Your task to perform on an android device: show emergency info Image 0: 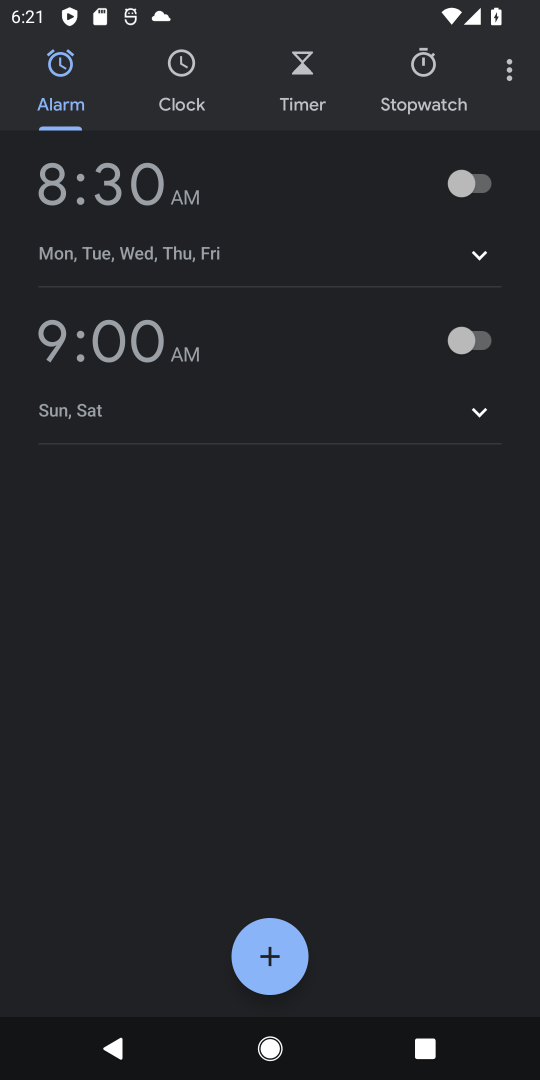
Step 0: press back button
Your task to perform on an android device: show emergency info Image 1: 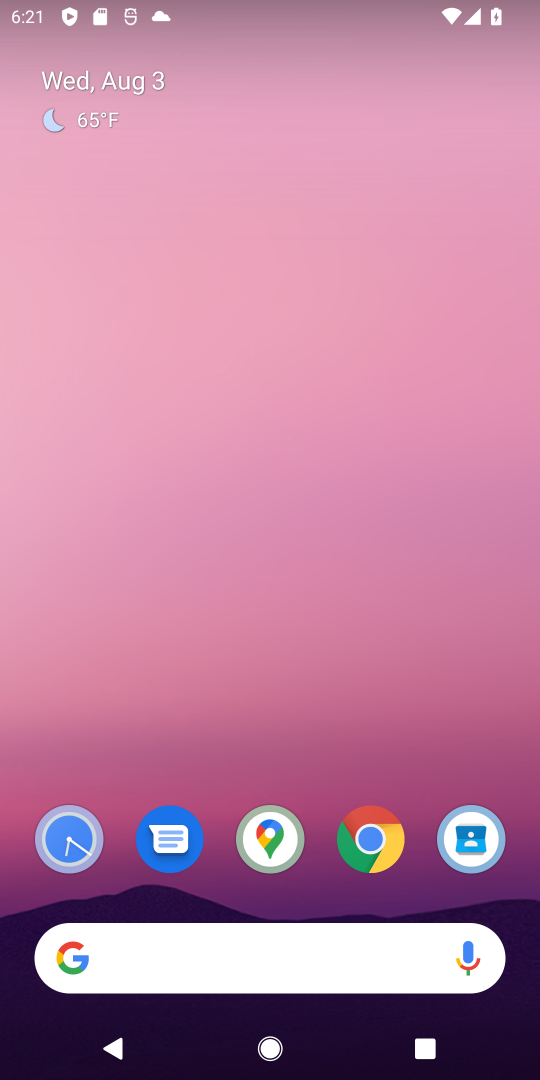
Step 1: drag from (155, 644) to (327, 11)
Your task to perform on an android device: show emergency info Image 2: 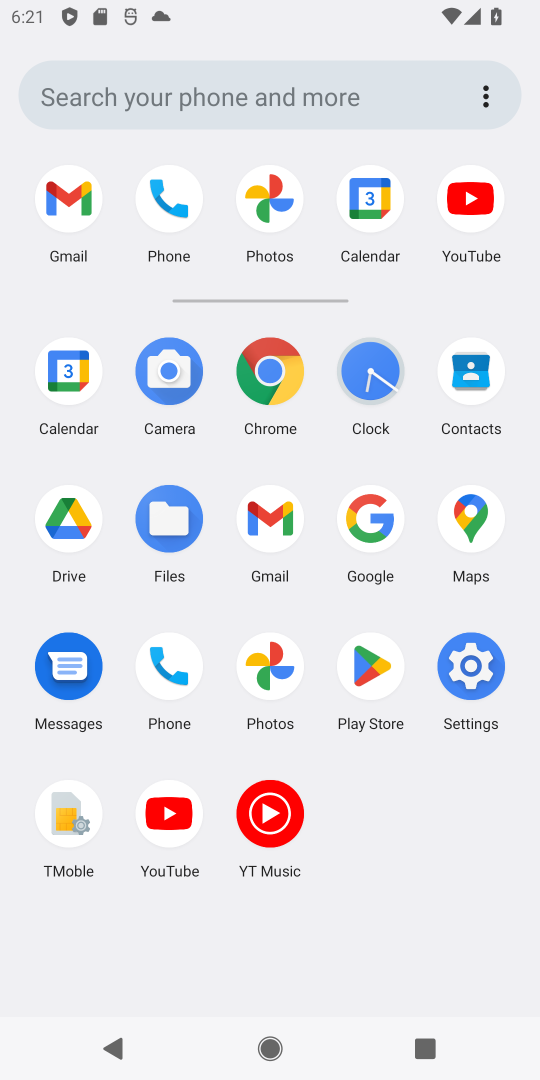
Step 2: click (486, 677)
Your task to perform on an android device: show emergency info Image 3: 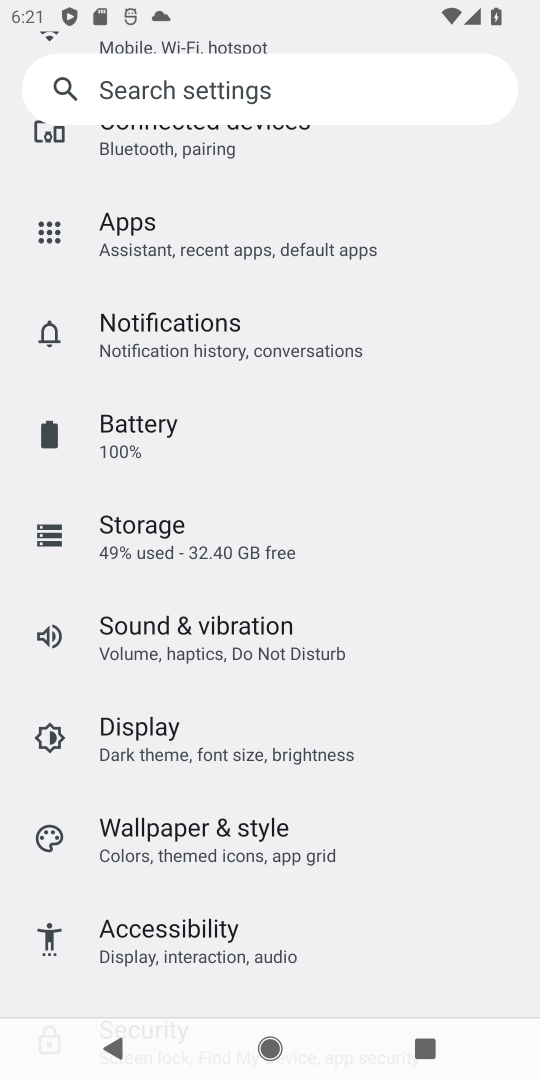
Step 3: drag from (237, 783) to (357, 17)
Your task to perform on an android device: show emergency info Image 4: 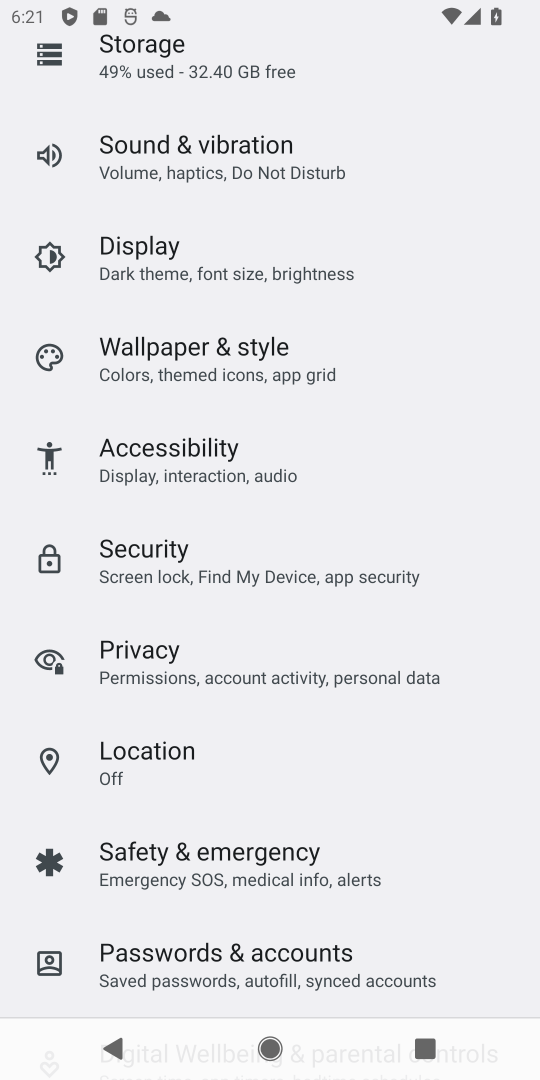
Step 4: drag from (228, 918) to (342, 84)
Your task to perform on an android device: show emergency info Image 5: 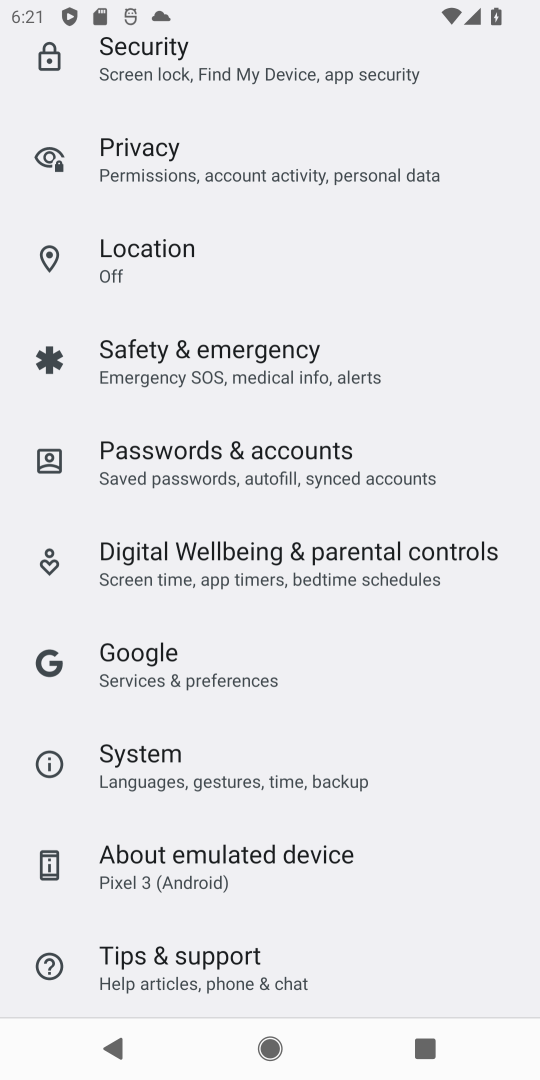
Step 5: drag from (244, 952) to (319, 27)
Your task to perform on an android device: show emergency info Image 6: 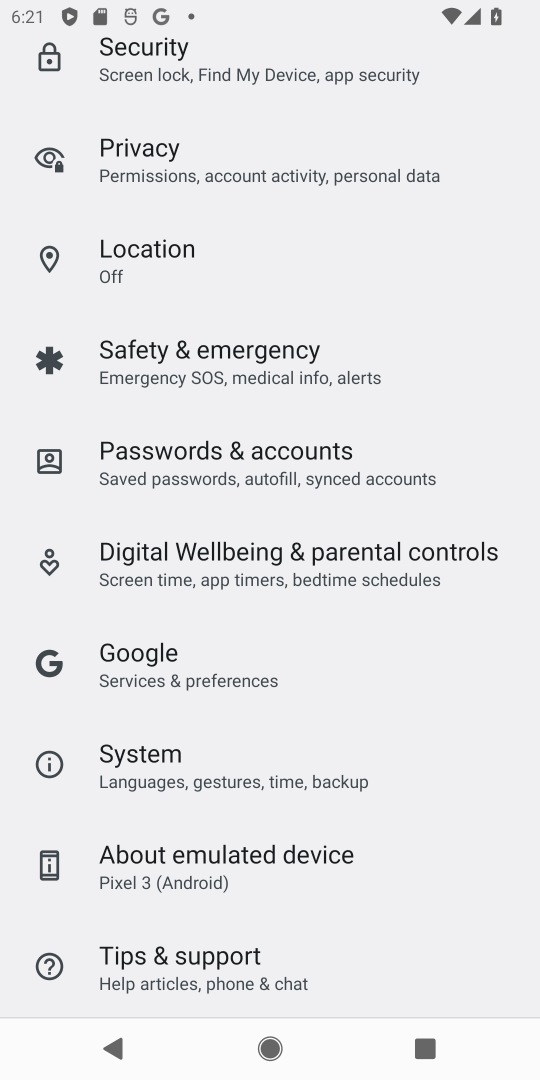
Step 6: click (222, 872)
Your task to perform on an android device: show emergency info Image 7: 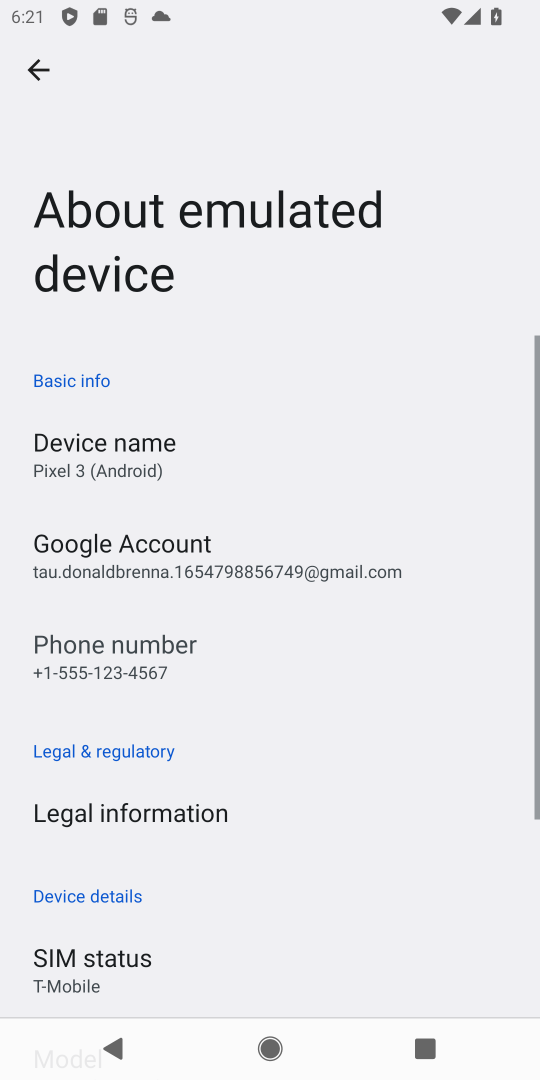
Step 7: task complete